Your task to perform on an android device: open app "Venmo" Image 0: 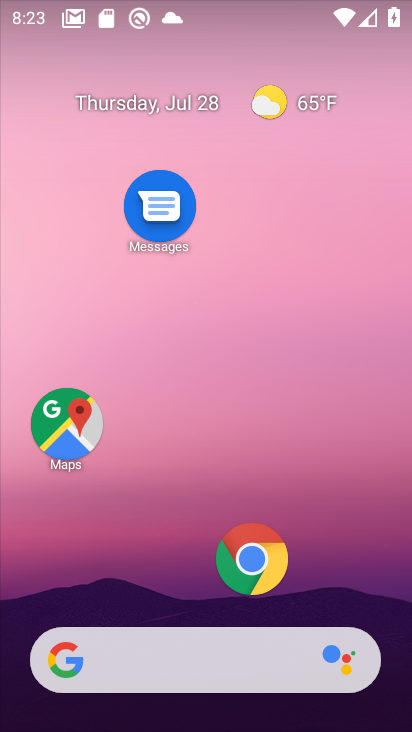
Step 0: drag from (164, 549) to (208, 3)
Your task to perform on an android device: open app "Venmo" Image 1: 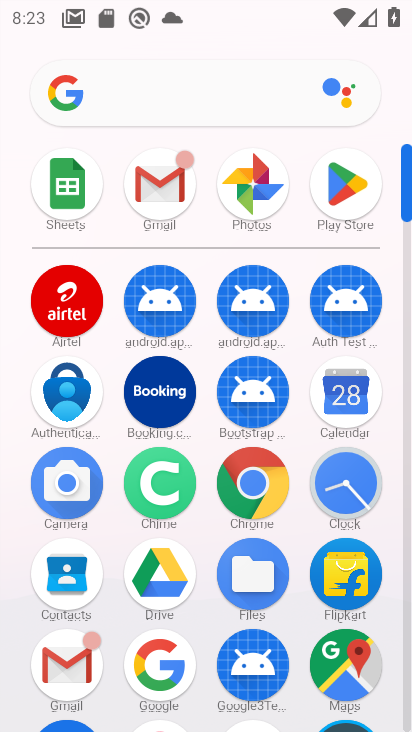
Step 1: click (347, 197)
Your task to perform on an android device: open app "Venmo" Image 2: 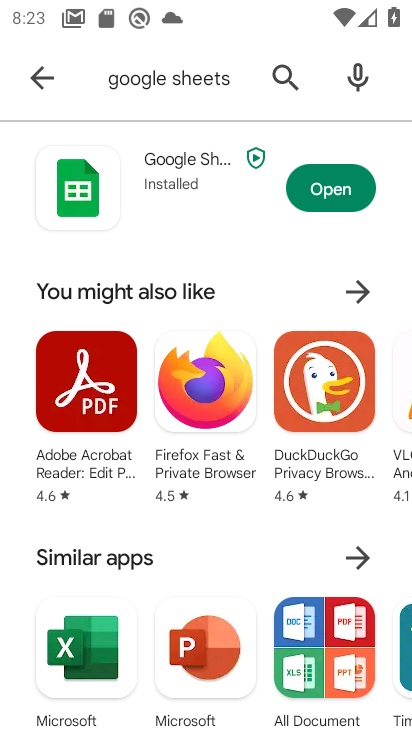
Step 2: click (167, 92)
Your task to perform on an android device: open app "Venmo" Image 3: 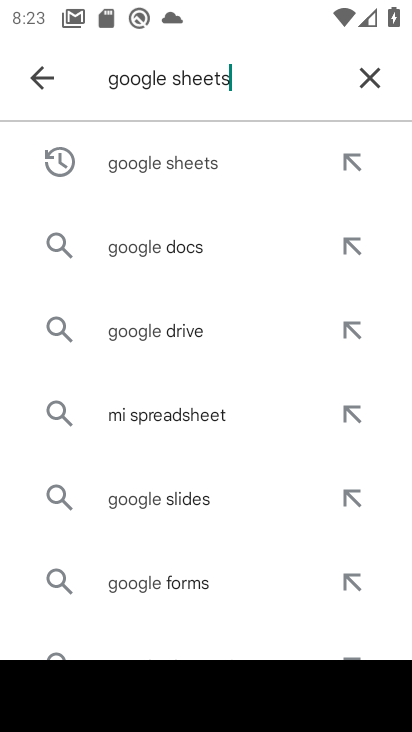
Step 3: click (365, 76)
Your task to perform on an android device: open app "Venmo" Image 4: 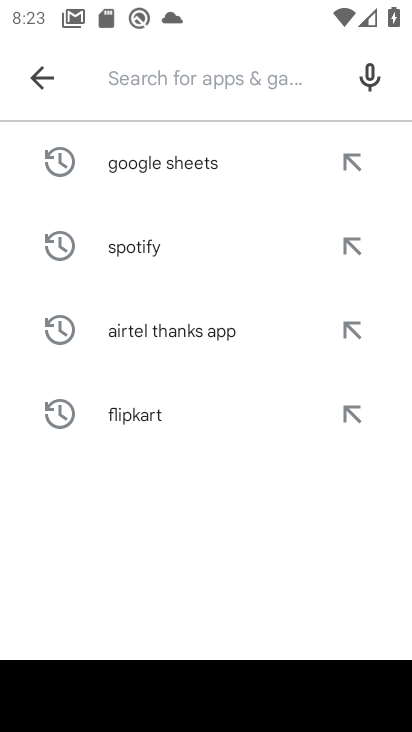
Step 4: type "Venmo"
Your task to perform on an android device: open app "Venmo" Image 5: 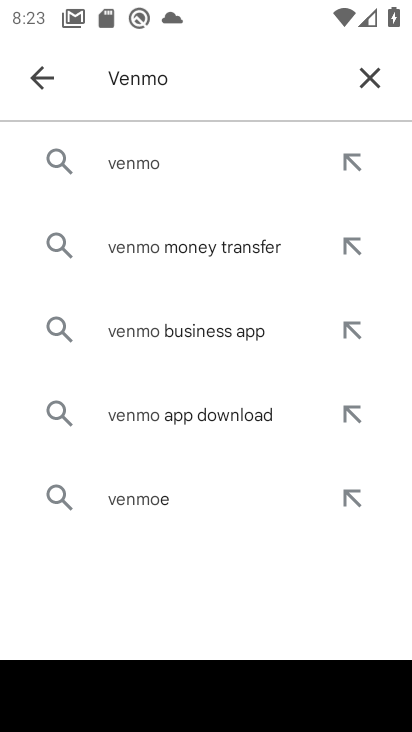
Step 5: click (190, 179)
Your task to perform on an android device: open app "Venmo" Image 6: 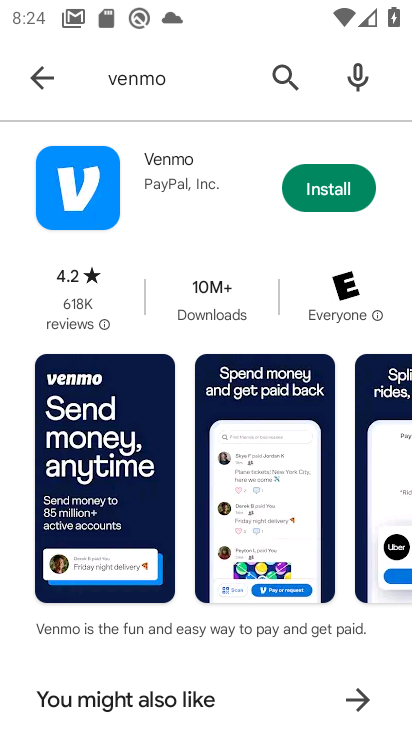
Step 6: task complete